Your task to perform on an android device: turn notification dots on Image 0: 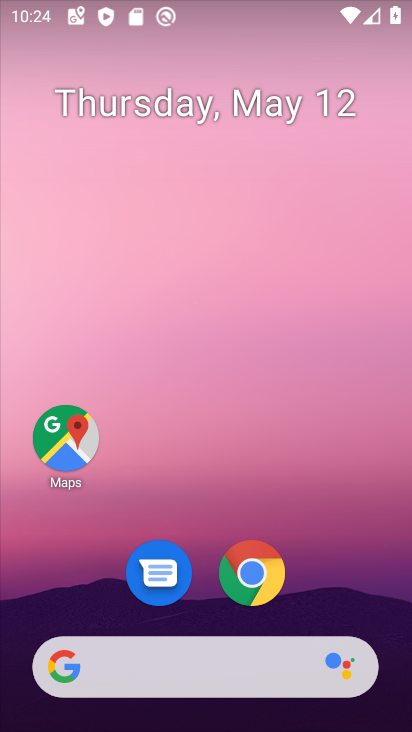
Step 0: drag from (339, 584) to (331, 118)
Your task to perform on an android device: turn notification dots on Image 1: 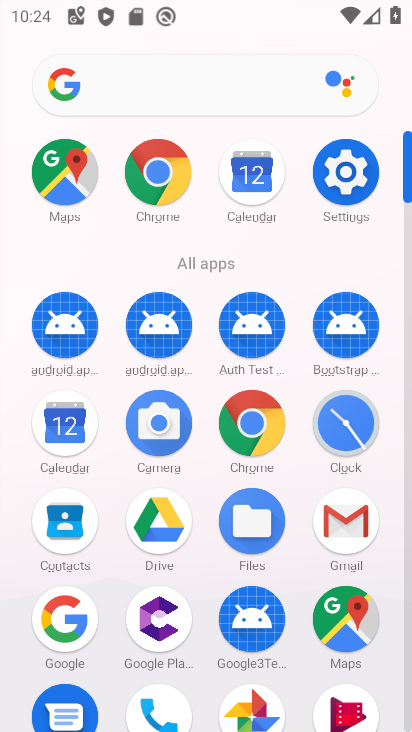
Step 1: click (350, 188)
Your task to perform on an android device: turn notification dots on Image 2: 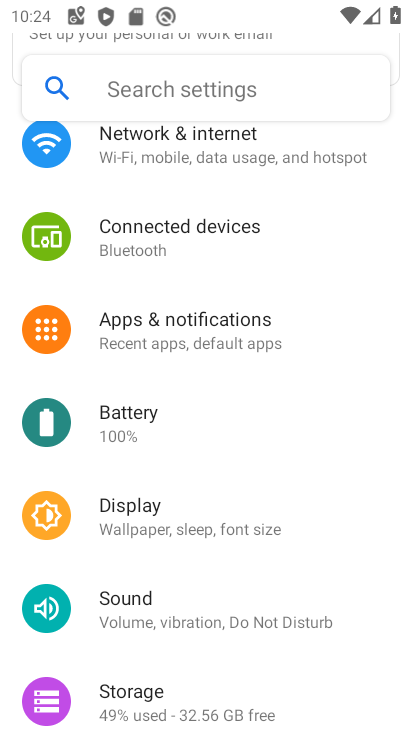
Step 2: drag from (256, 472) to (310, 216)
Your task to perform on an android device: turn notification dots on Image 3: 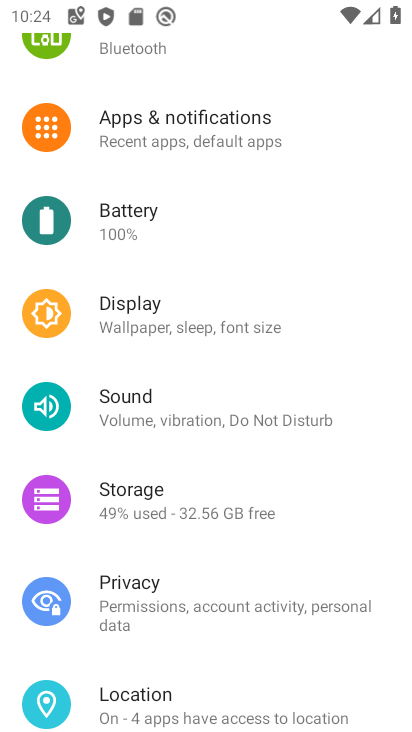
Step 3: click (212, 126)
Your task to perform on an android device: turn notification dots on Image 4: 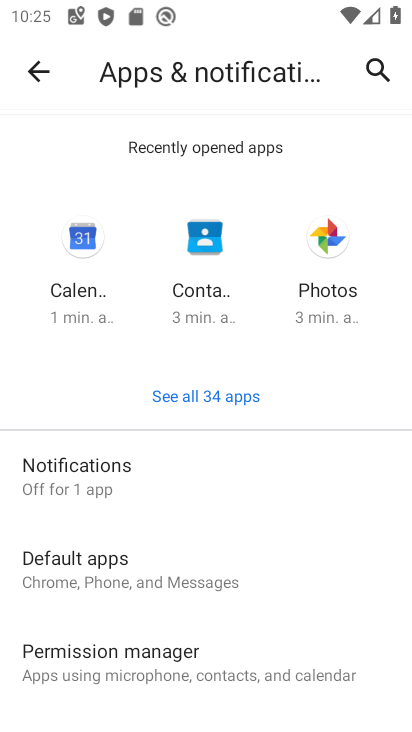
Step 4: click (101, 489)
Your task to perform on an android device: turn notification dots on Image 5: 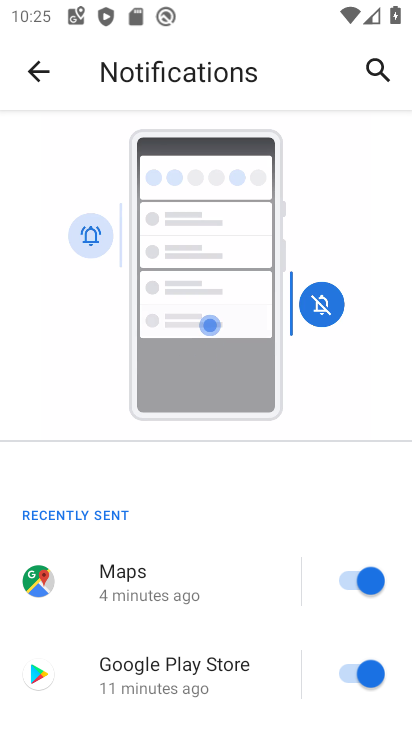
Step 5: drag from (183, 593) to (292, 158)
Your task to perform on an android device: turn notification dots on Image 6: 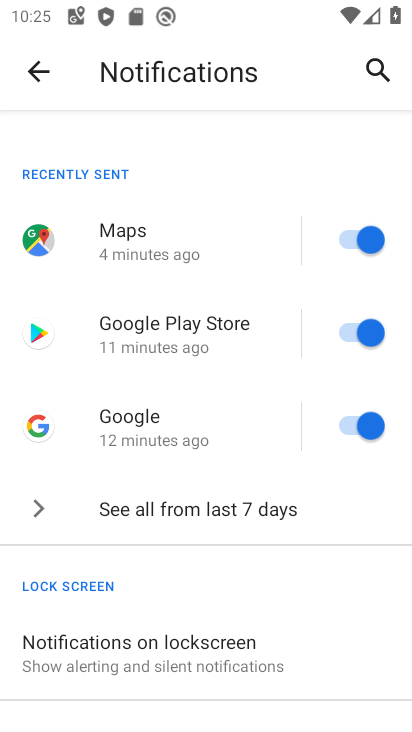
Step 6: drag from (123, 639) to (304, 192)
Your task to perform on an android device: turn notification dots on Image 7: 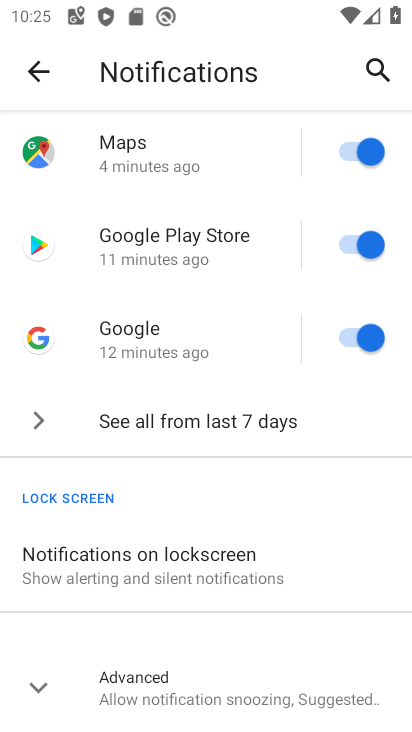
Step 7: click (129, 705)
Your task to perform on an android device: turn notification dots on Image 8: 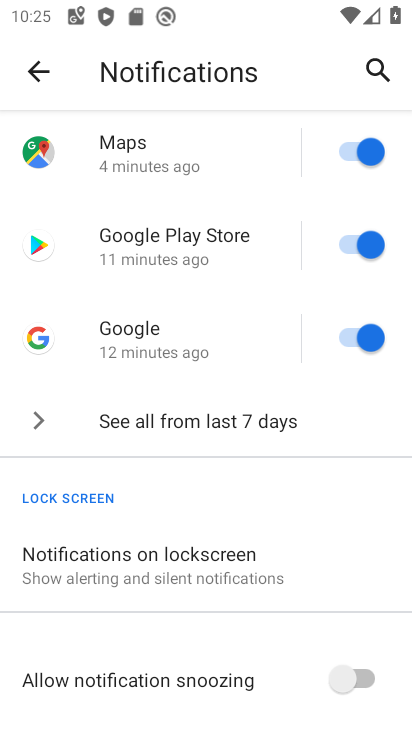
Step 8: task complete